Your task to perform on an android device: turn off airplane mode Image 0: 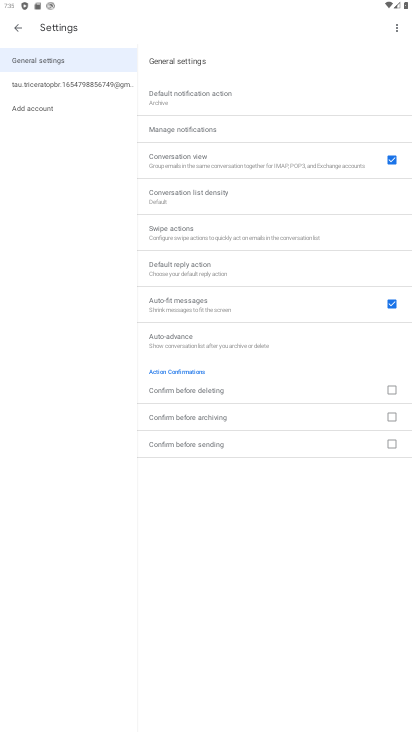
Step 0: press home button
Your task to perform on an android device: turn off airplane mode Image 1: 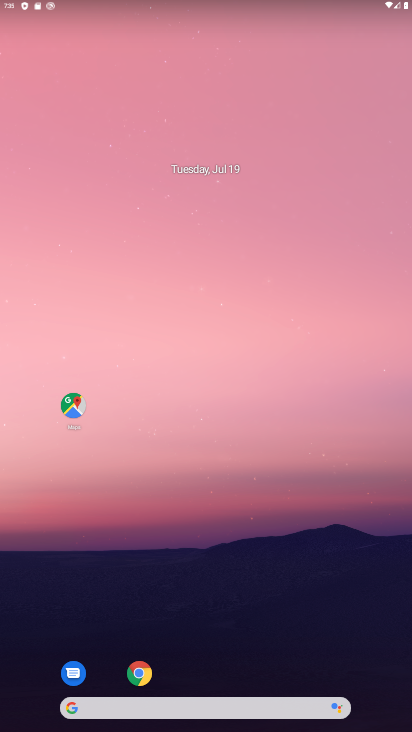
Step 1: drag from (209, 633) to (248, 400)
Your task to perform on an android device: turn off airplane mode Image 2: 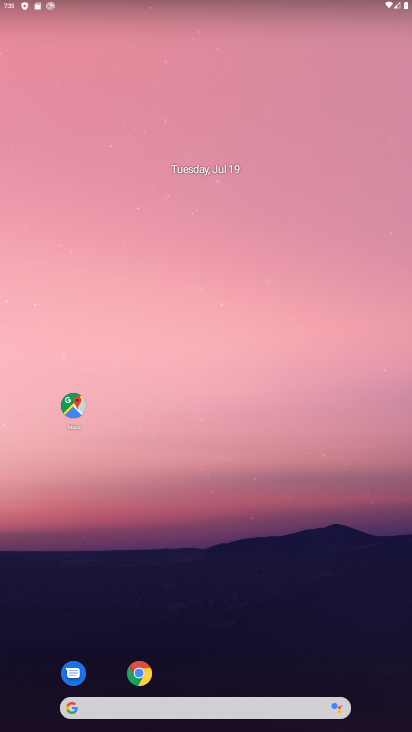
Step 2: drag from (134, 730) to (204, 64)
Your task to perform on an android device: turn off airplane mode Image 3: 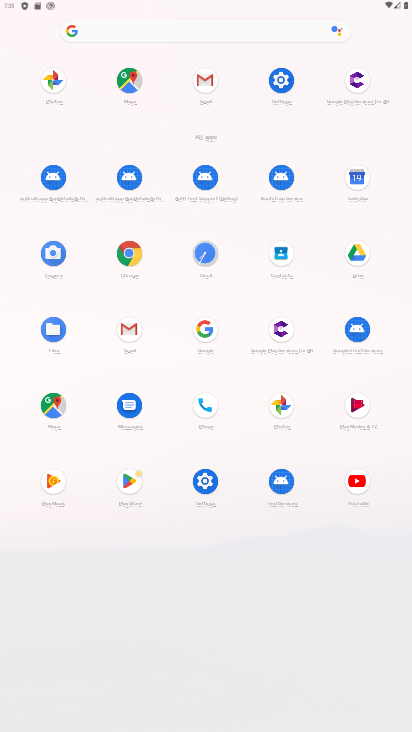
Step 3: click (275, 90)
Your task to perform on an android device: turn off airplane mode Image 4: 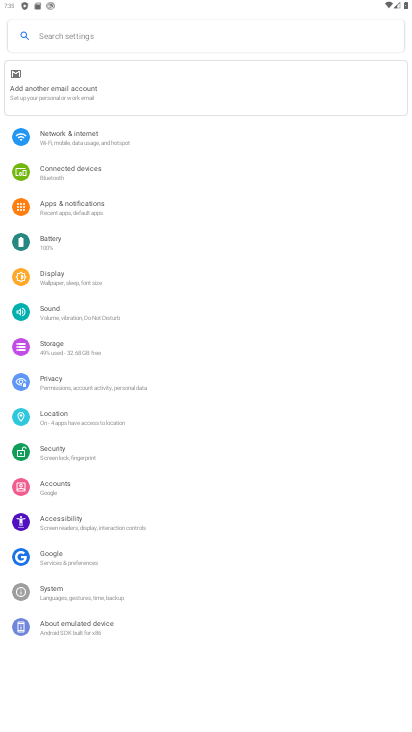
Step 4: click (175, 138)
Your task to perform on an android device: turn off airplane mode Image 5: 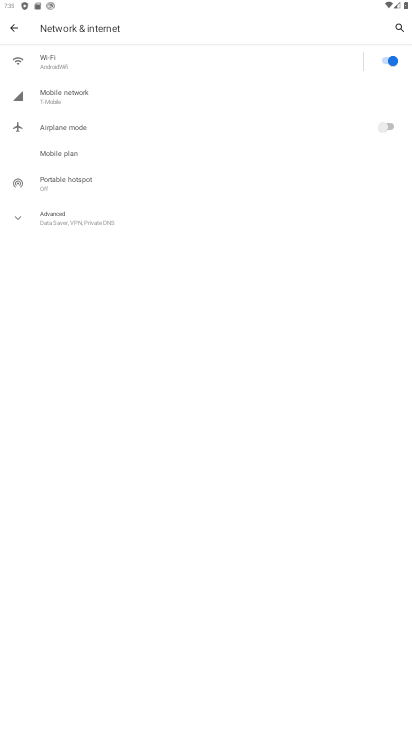
Step 5: task complete